Your task to perform on an android device: turn on notifications settings in the gmail app Image 0: 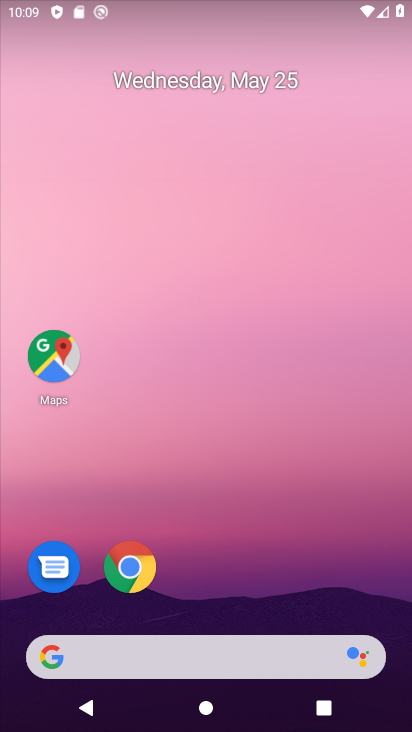
Step 0: drag from (289, 506) to (358, 75)
Your task to perform on an android device: turn on notifications settings in the gmail app Image 1: 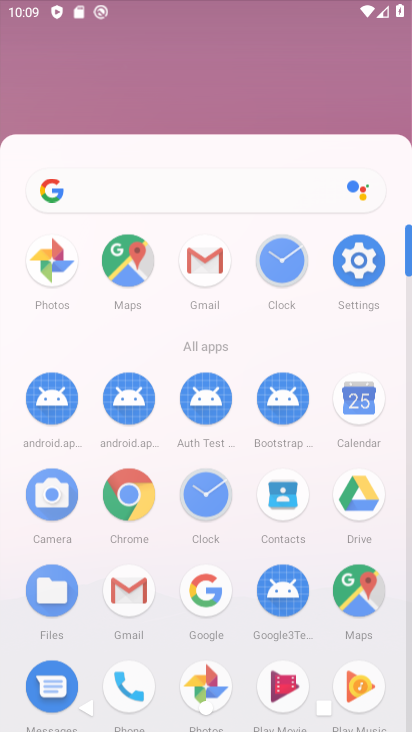
Step 1: drag from (210, 552) to (176, 6)
Your task to perform on an android device: turn on notifications settings in the gmail app Image 2: 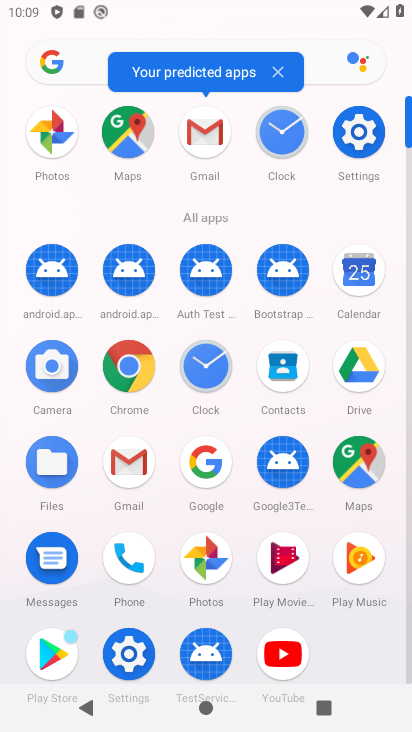
Step 2: click (126, 458)
Your task to perform on an android device: turn on notifications settings in the gmail app Image 3: 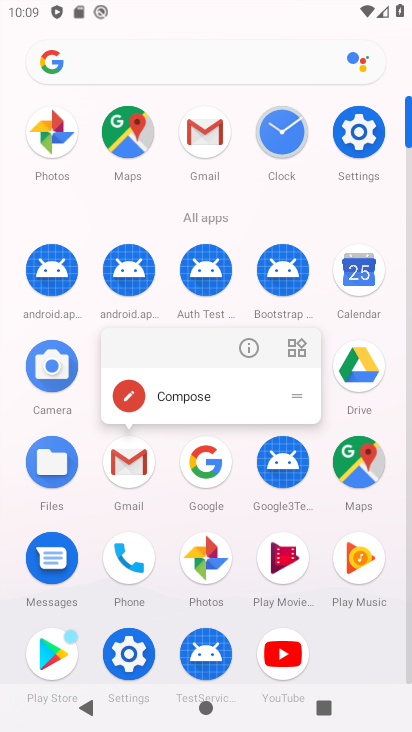
Step 3: click (135, 469)
Your task to perform on an android device: turn on notifications settings in the gmail app Image 4: 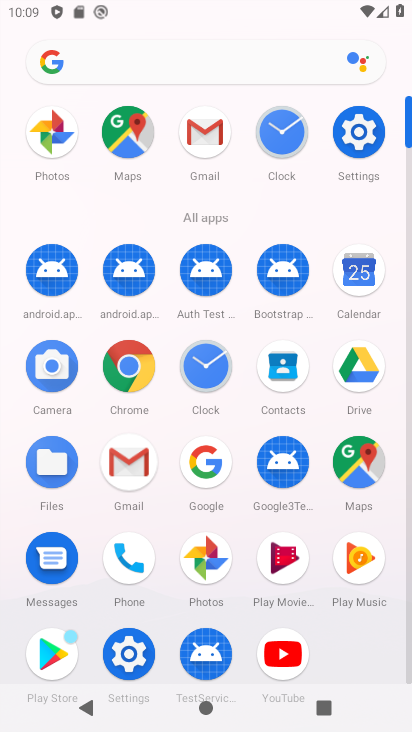
Step 4: click (135, 466)
Your task to perform on an android device: turn on notifications settings in the gmail app Image 5: 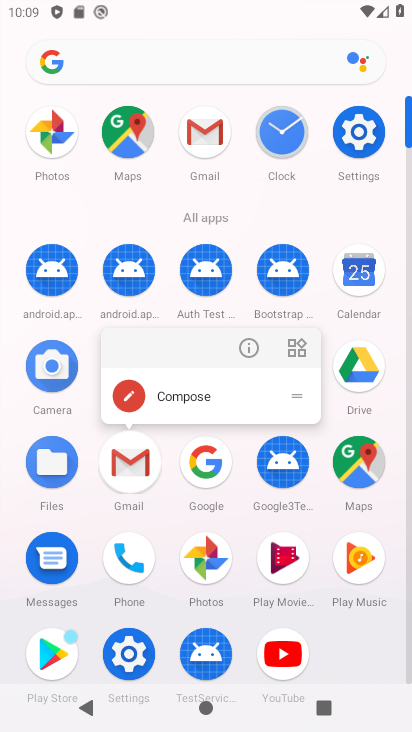
Step 5: click (134, 464)
Your task to perform on an android device: turn on notifications settings in the gmail app Image 6: 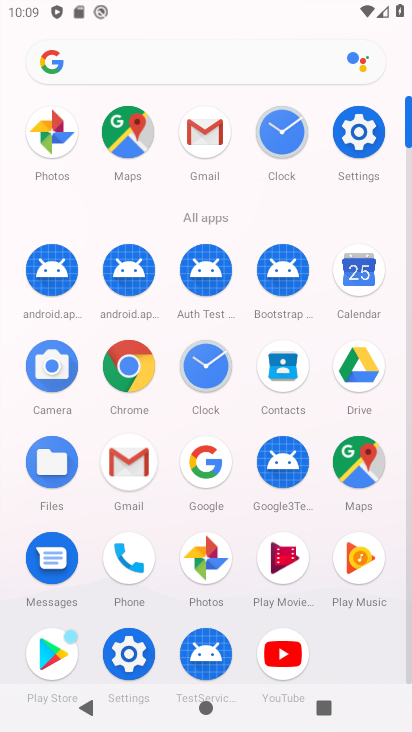
Step 6: click (123, 464)
Your task to perform on an android device: turn on notifications settings in the gmail app Image 7: 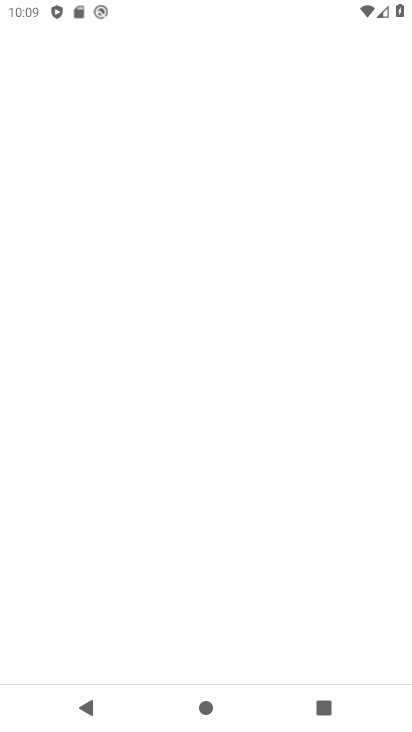
Step 7: click (126, 467)
Your task to perform on an android device: turn on notifications settings in the gmail app Image 8: 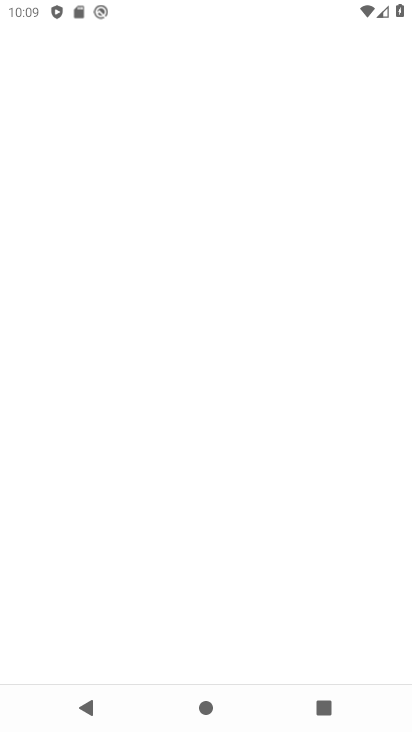
Step 8: click (126, 467)
Your task to perform on an android device: turn on notifications settings in the gmail app Image 9: 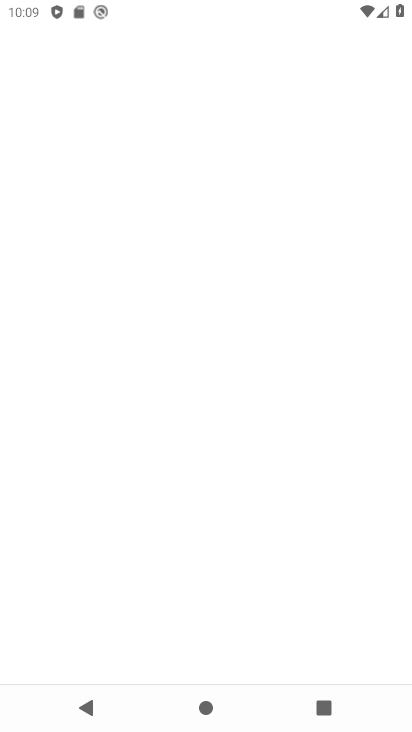
Step 9: click (127, 467)
Your task to perform on an android device: turn on notifications settings in the gmail app Image 10: 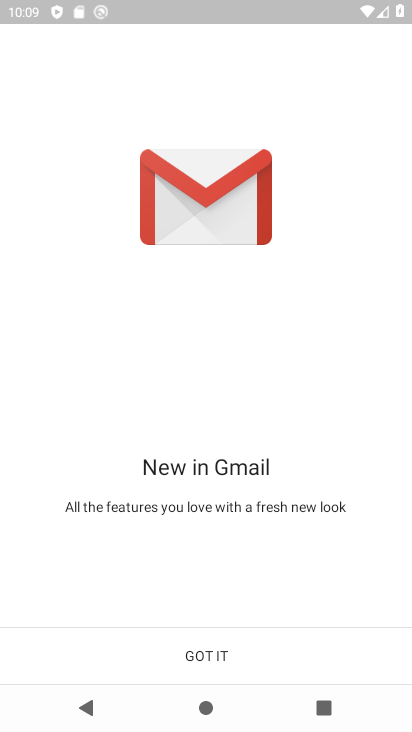
Step 10: click (202, 634)
Your task to perform on an android device: turn on notifications settings in the gmail app Image 11: 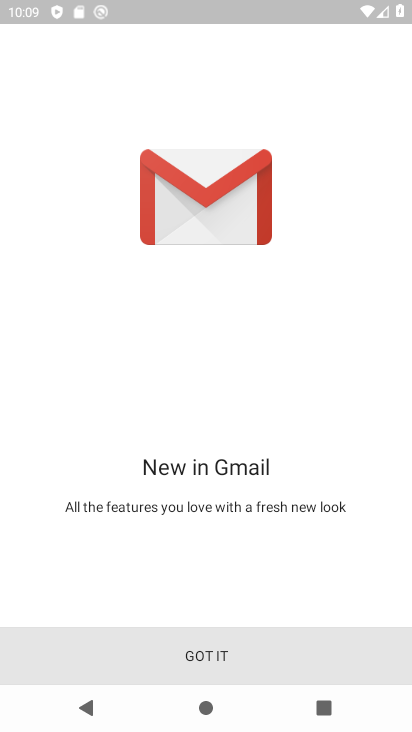
Step 11: click (203, 658)
Your task to perform on an android device: turn on notifications settings in the gmail app Image 12: 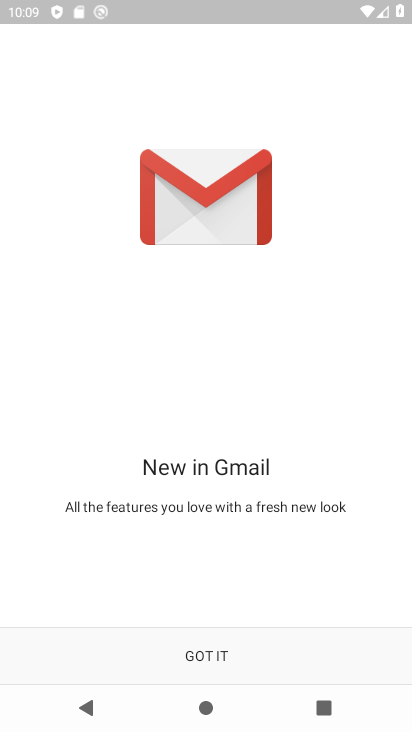
Step 12: click (198, 651)
Your task to perform on an android device: turn on notifications settings in the gmail app Image 13: 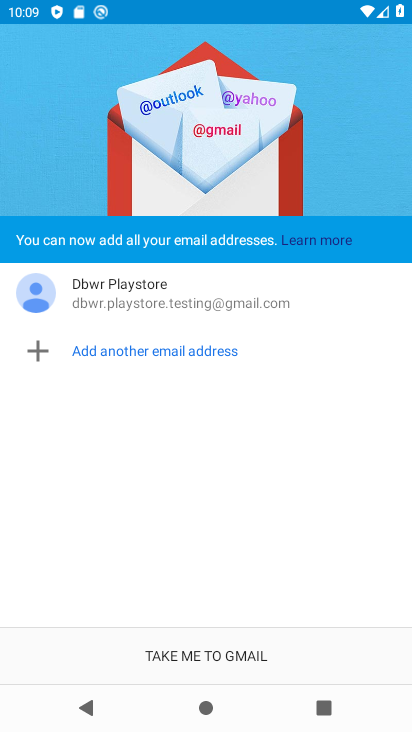
Step 13: click (203, 648)
Your task to perform on an android device: turn on notifications settings in the gmail app Image 14: 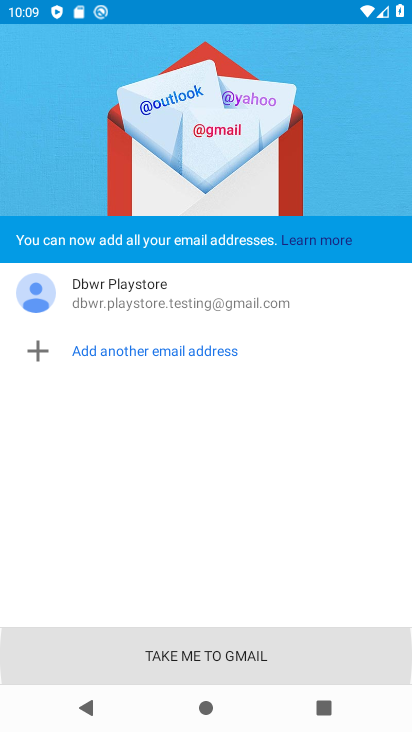
Step 14: click (203, 648)
Your task to perform on an android device: turn on notifications settings in the gmail app Image 15: 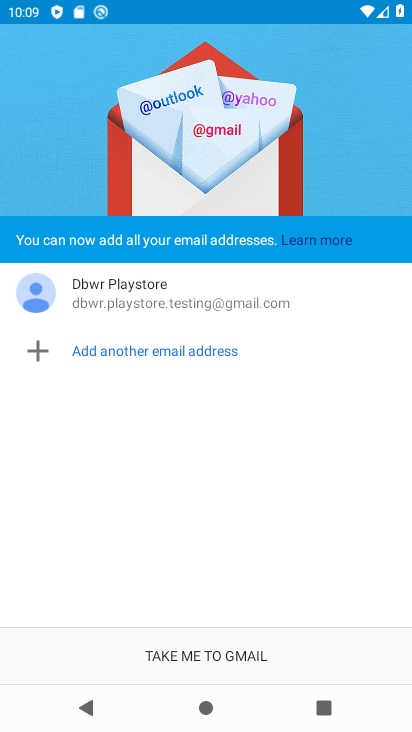
Step 15: click (201, 649)
Your task to perform on an android device: turn on notifications settings in the gmail app Image 16: 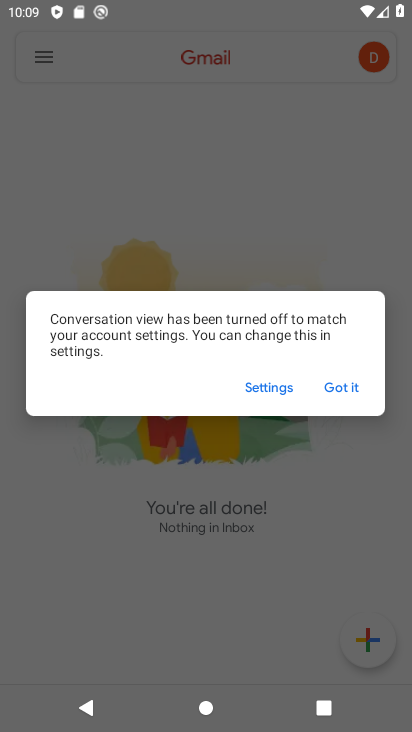
Step 16: click (344, 398)
Your task to perform on an android device: turn on notifications settings in the gmail app Image 17: 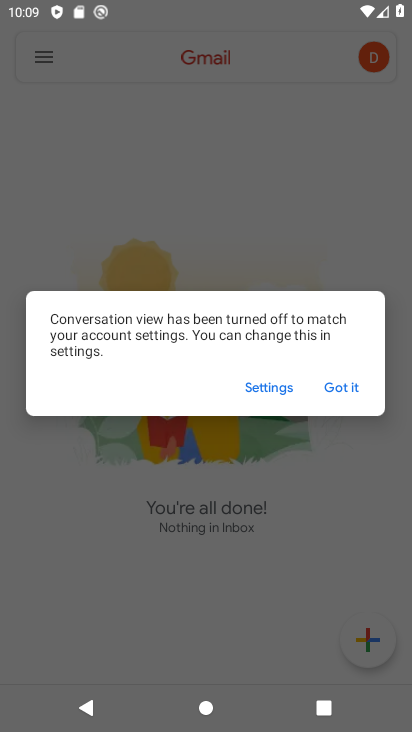
Step 17: click (344, 397)
Your task to perform on an android device: turn on notifications settings in the gmail app Image 18: 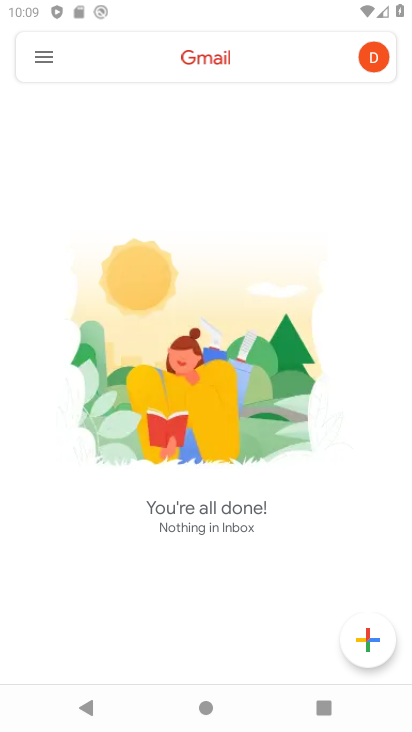
Step 18: click (340, 393)
Your task to perform on an android device: turn on notifications settings in the gmail app Image 19: 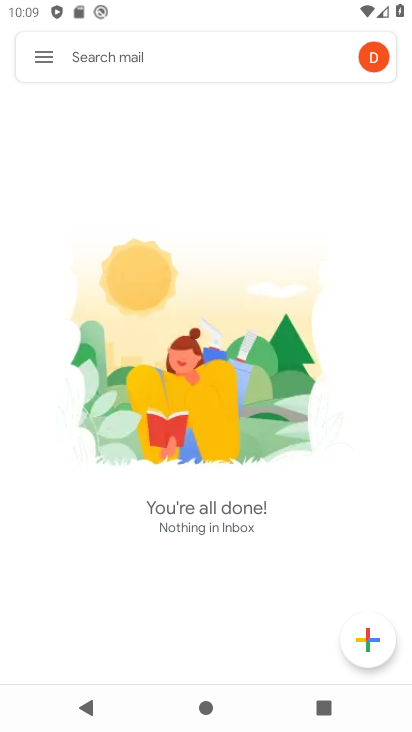
Step 19: click (39, 54)
Your task to perform on an android device: turn on notifications settings in the gmail app Image 20: 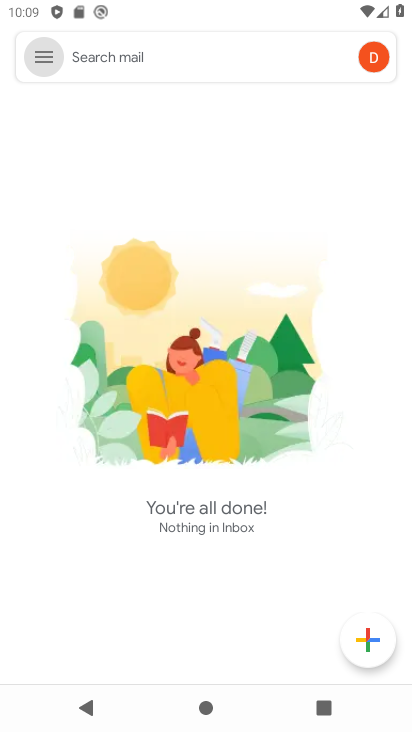
Step 20: click (40, 59)
Your task to perform on an android device: turn on notifications settings in the gmail app Image 21: 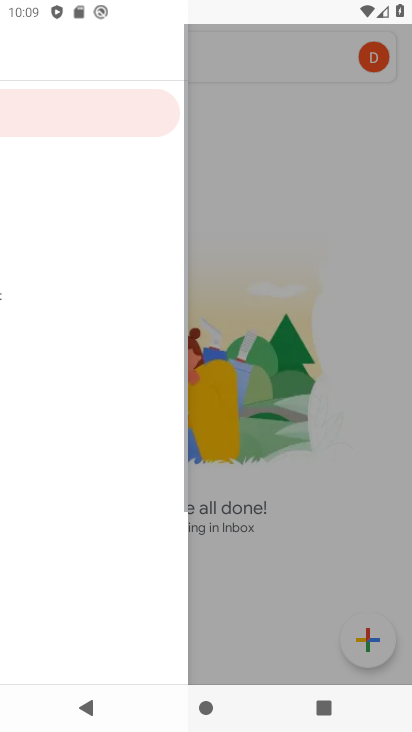
Step 21: drag from (40, 59) to (157, 2)
Your task to perform on an android device: turn on notifications settings in the gmail app Image 22: 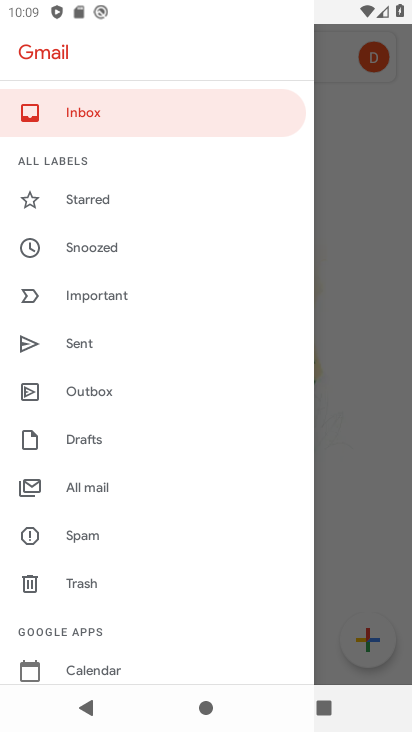
Step 22: drag from (39, 561) to (73, 114)
Your task to perform on an android device: turn on notifications settings in the gmail app Image 23: 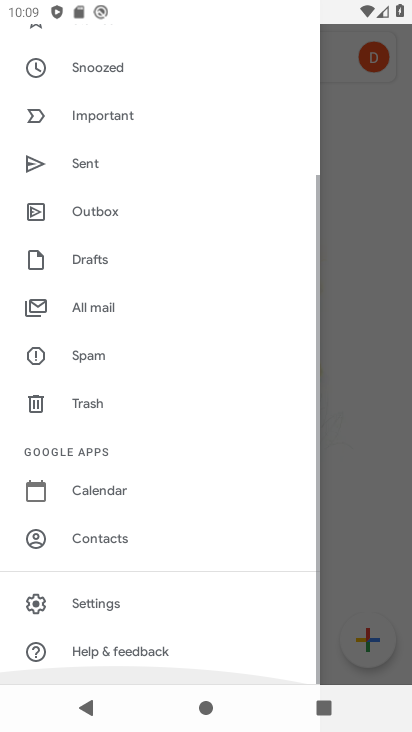
Step 23: drag from (63, 527) to (98, 601)
Your task to perform on an android device: turn on notifications settings in the gmail app Image 24: 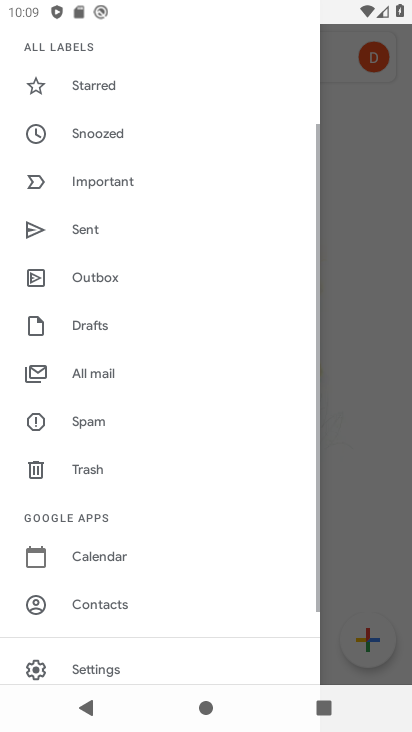
Step 24: click (98, 601)
Your task to perform on an android device: turn on notifications settings in the gmail app Image 25: 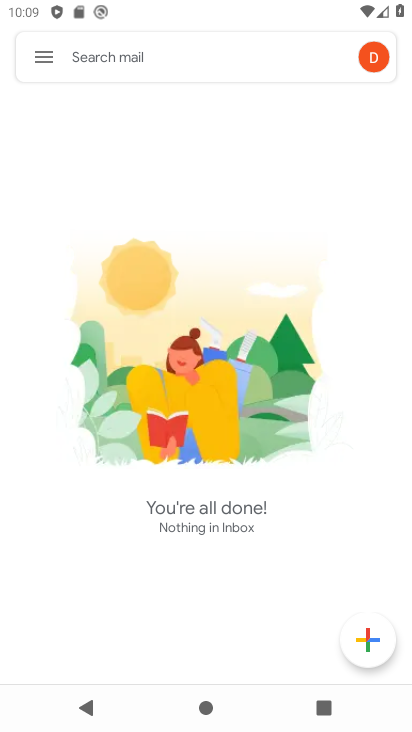
Step 25: click (86, 658)
Your task to perform on an android device: turn on notifications settings in the gmail app Image 26: 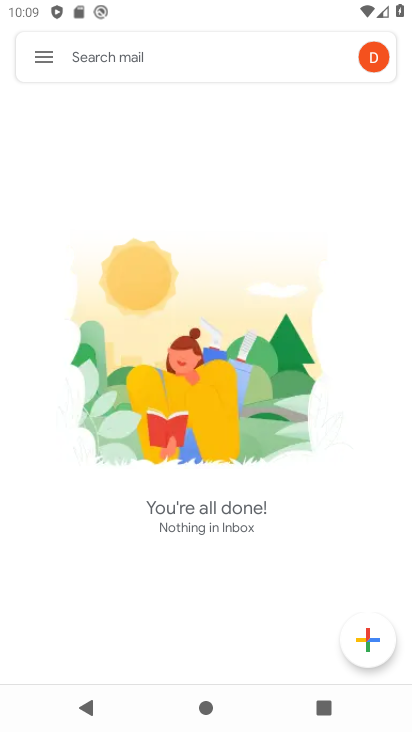
Step 26: click (38, 57)
Your task to perform on an android device: turn on notifications settings in the gmail app Image 27: 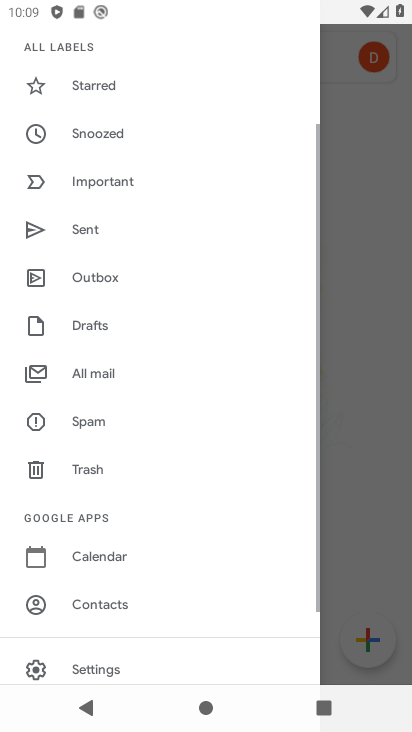
Step 27: drag from (88, 549) to (53, 201)
Your task to perform on an android device: turn on notifications settings in the gmail app Image 28: 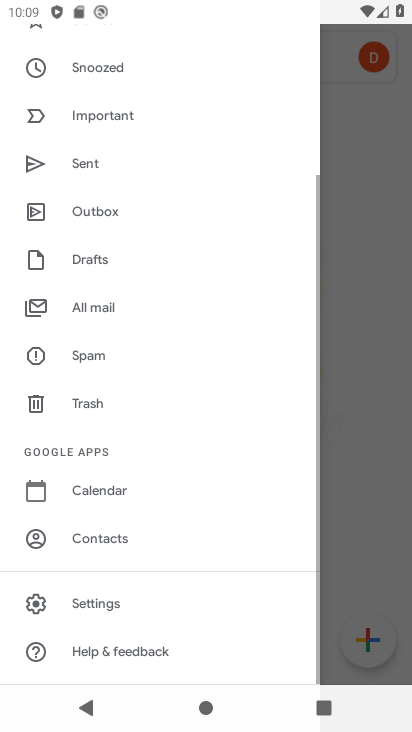
Step 28: click (81, 603)
Your task to perform on an android device: turn on notifications settings in the gmail app Image 29: 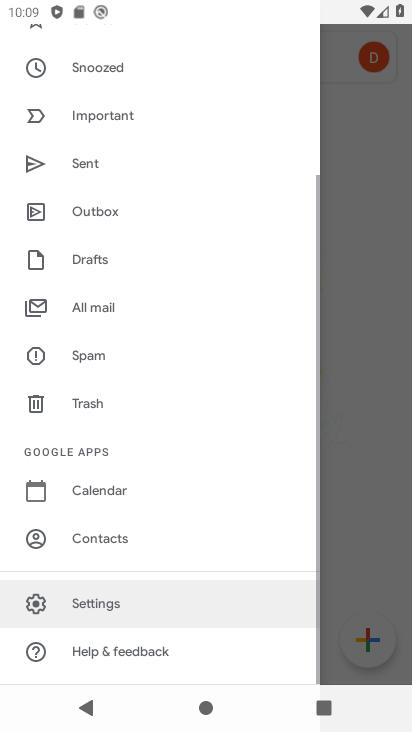
Step 29: click (80, 604)
Your task to perform on an android device: turn on notifications settings in the gmail app Image 30: 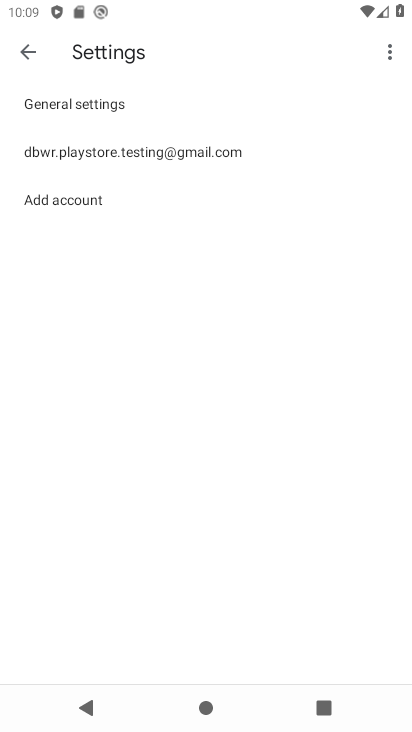
Step 30: click (102, 151)
Your task to perform on an android device: turn on notifications settings in the gmail app Image 31: 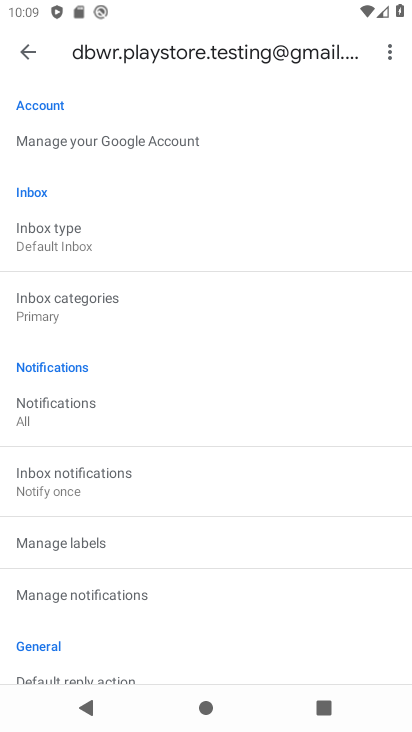
Step 31: click (26, 388)
Your task to perform on an android device: turn on notifications settings in the gmail app Image 32: 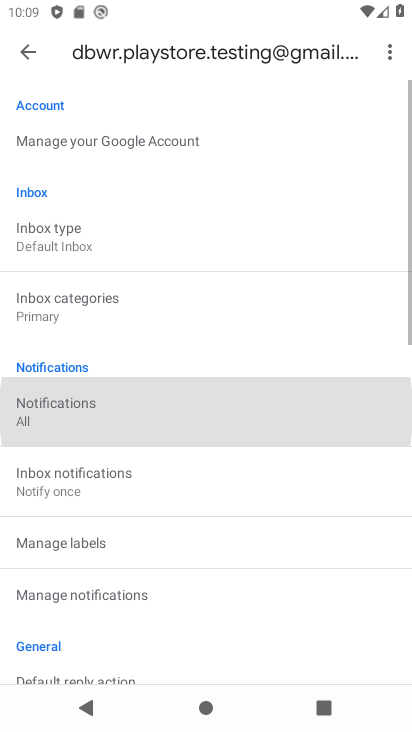
Step 32: click (26, 388)
Your task to perform on an android device: turn on notifications settings in the gmail app Image 33: 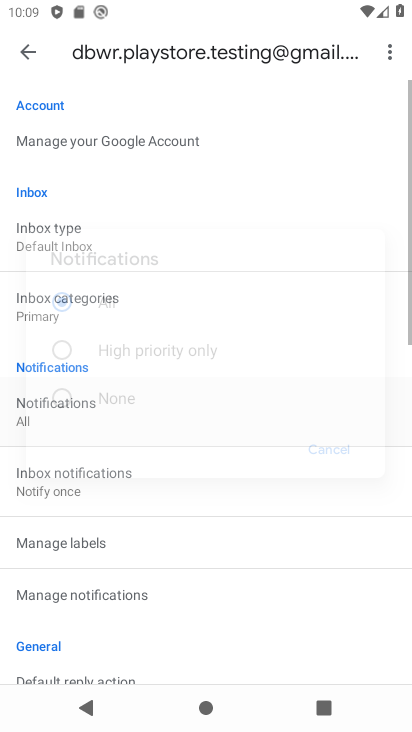
Step 33: click (26, 389)
Your task to perform on an android device: turn on notifications settings in the gmail app Image 34: 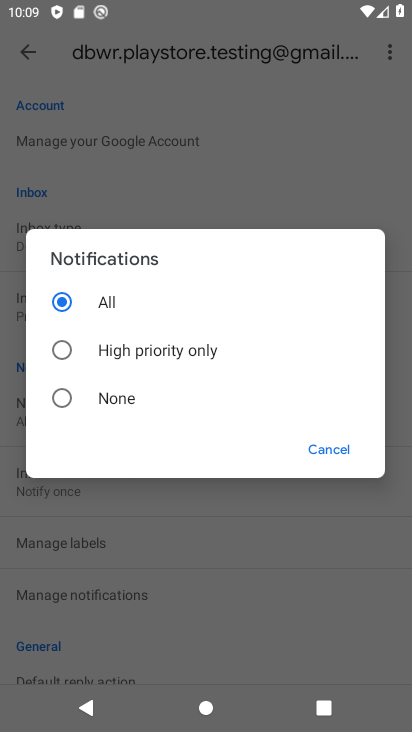
Step 34: task complete